Your task to perform on an android device: Clear all items from cart on target. Search for razer blade on target, select the first entry, add it to the cart, then select checkout. Image 0: 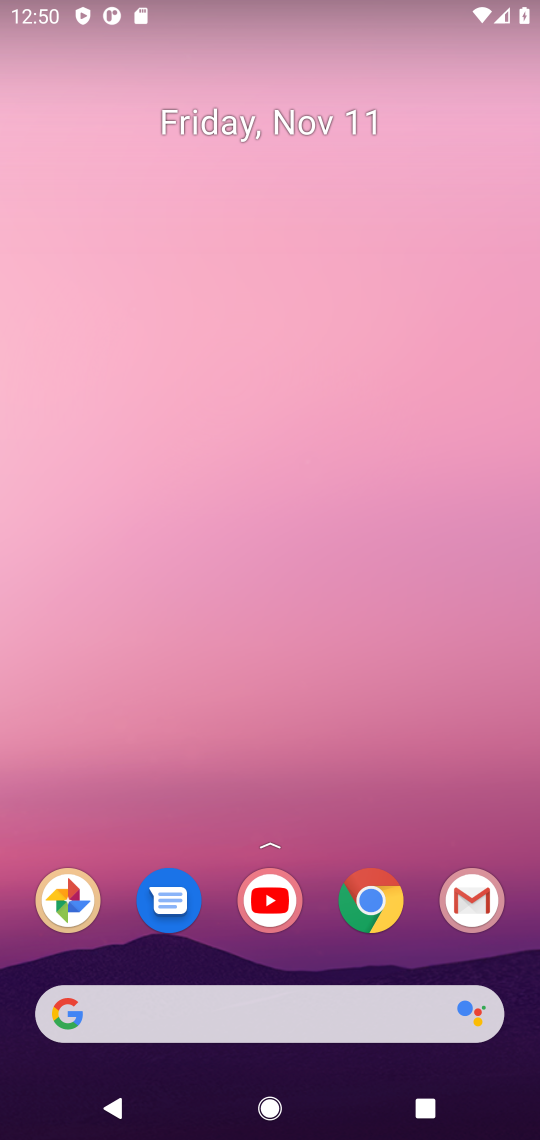
Step 0: press home button
Your task to perform on an android device: Clear all items from cart on target. Search for razer blade on target, select the first entry, add it to the cart, then select checkout. Image 1: 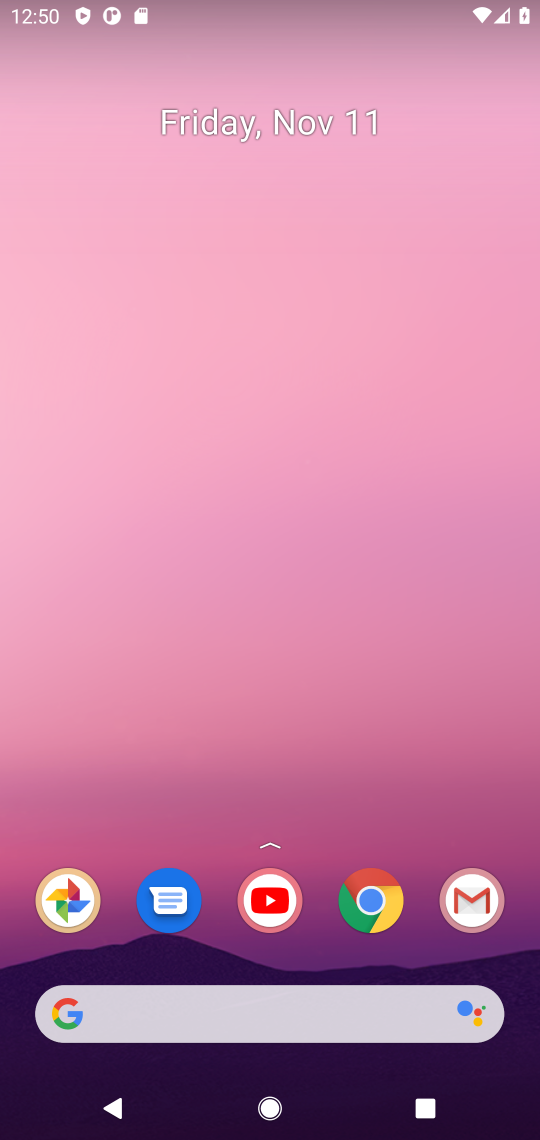
Step 1: click (364, 897)
Your task to perform on an android device: Clear all items from cart on target. Search for razer blade on target, select the first entry, add it to the cart, then select checkout. Image 2: 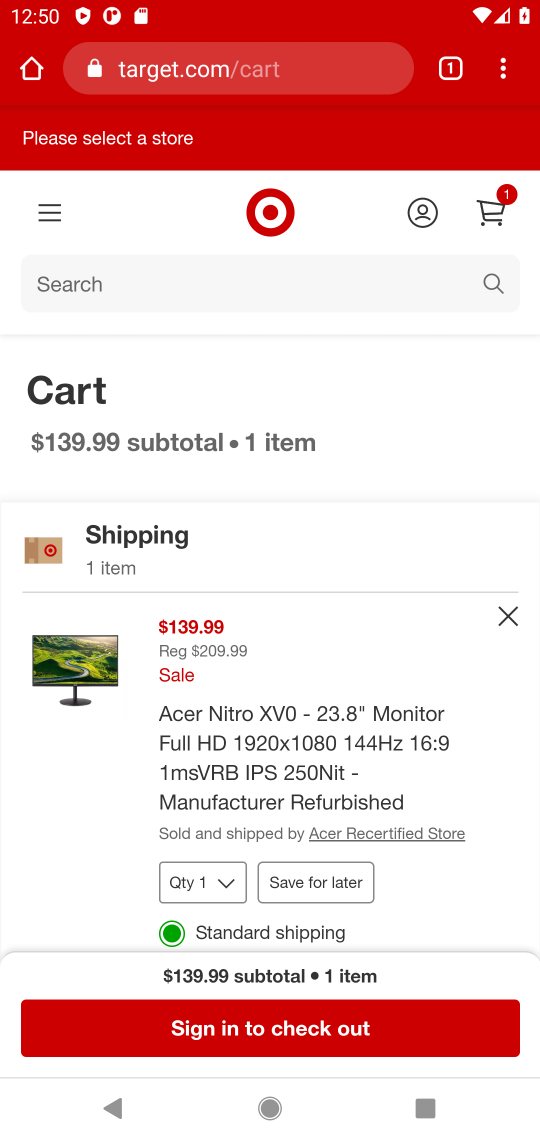
Step 2: click (505, 614)
Your task to perform on an android device: Clear all items from cart on target. Search for razer blade on target, select the first entry, add it to the cart, then select checkout. Image 3: 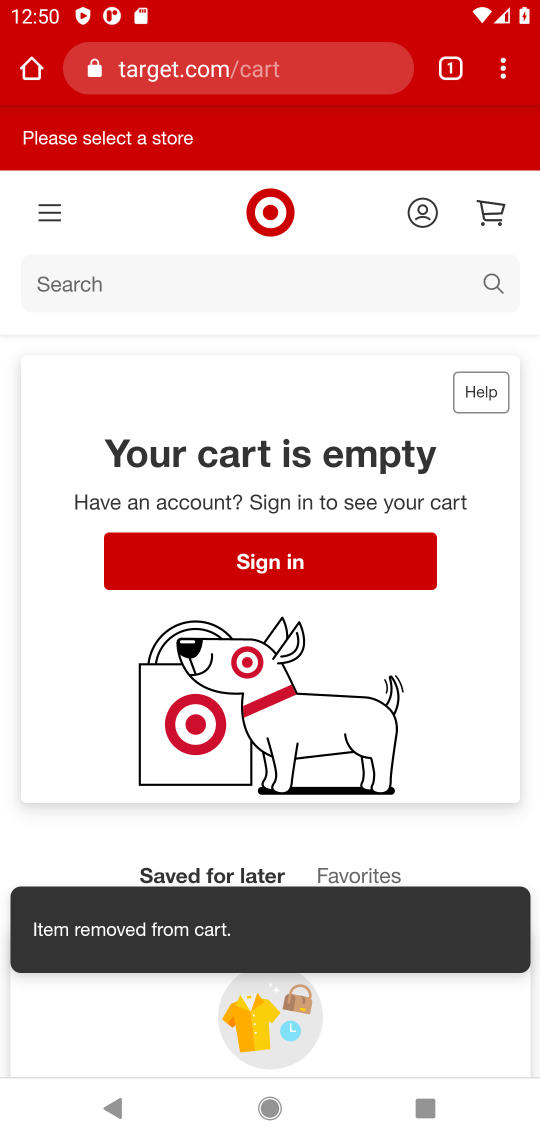
Step 3: click (65, 278)
Your task to perform on an android device: Clear all items from cart on target. Search for razer blade on target, select the first entry, add it to the cart, then select checkout. Image 4: 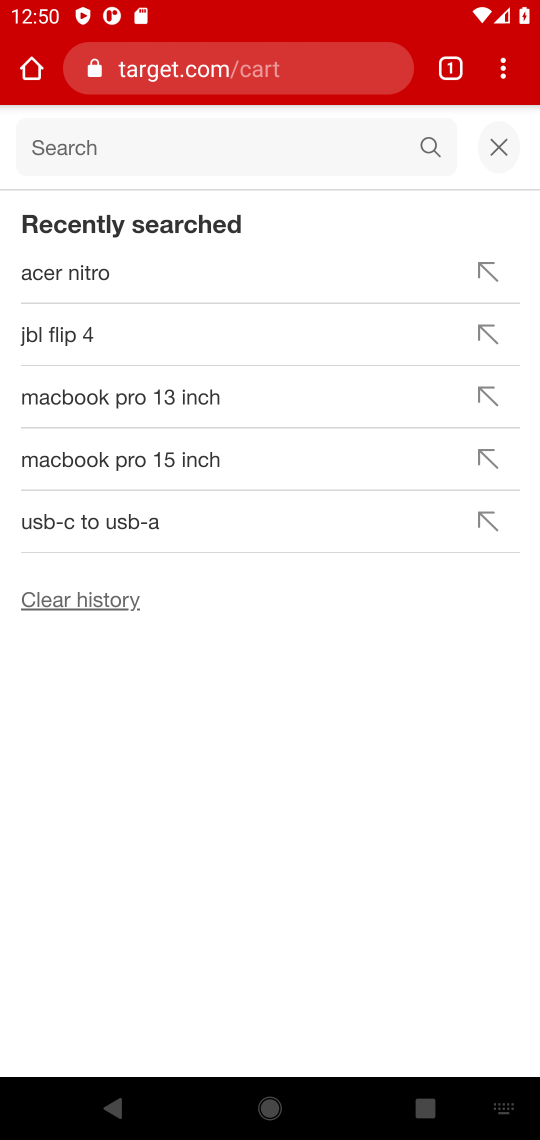
Step 4: click (47, 141)
Your task to perform on an android device: Clear all items from cart on target. Search for razer blade on target, select the first entry, add it to the cart, then select checkout. Image 5: 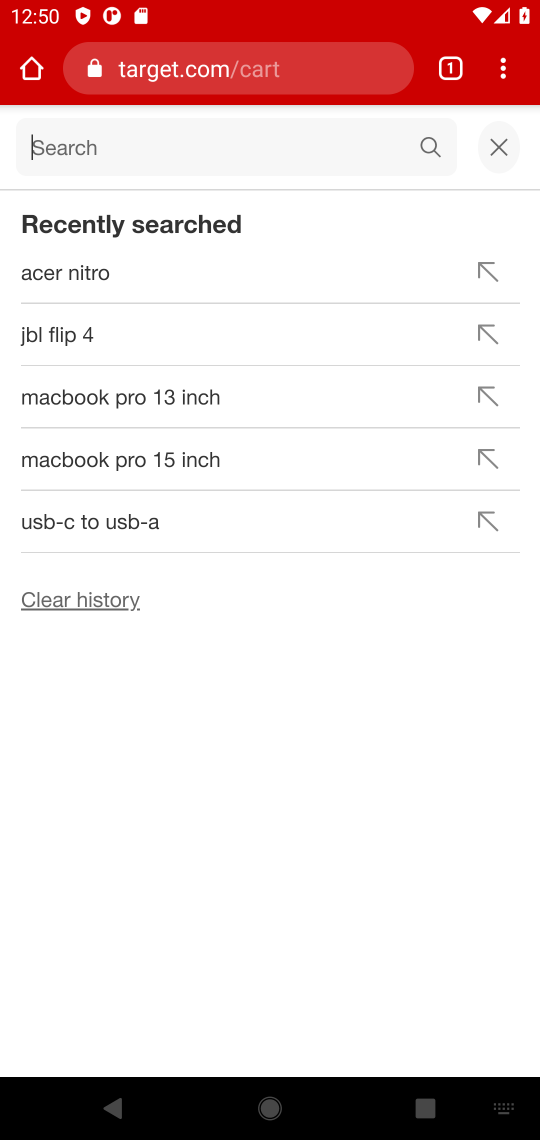
Step 5: type "razer blade"
Your task to perform on an android device: Clear all items from cart on target. Search for razer blade on target, select the first entry, add it to the cart, then select checkout. Image 6: 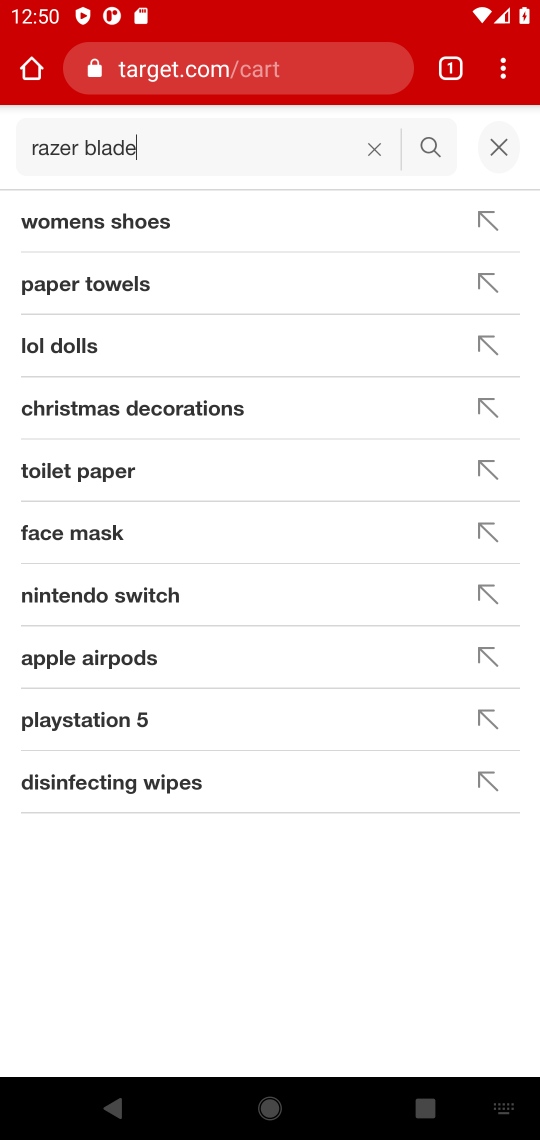
Step 6: press enter
Your task to perform on an android device: Clear all items from cart on target. Search for razer blade on target, select the first entry, add it to the cart, then select checkout. Image 7: 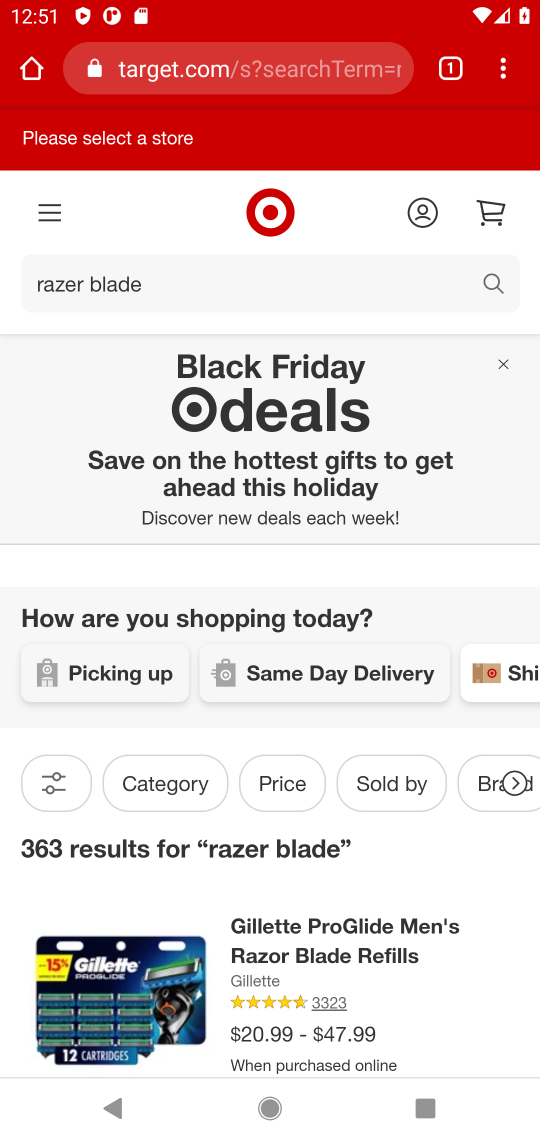
Step 7: drag from (222, 969) to (311, 578)
Your task to perform on an android device: Clear all items from cart on target. Search for razer blade on target, select the first entry, add it to the cart, then select checkout. Image 8: 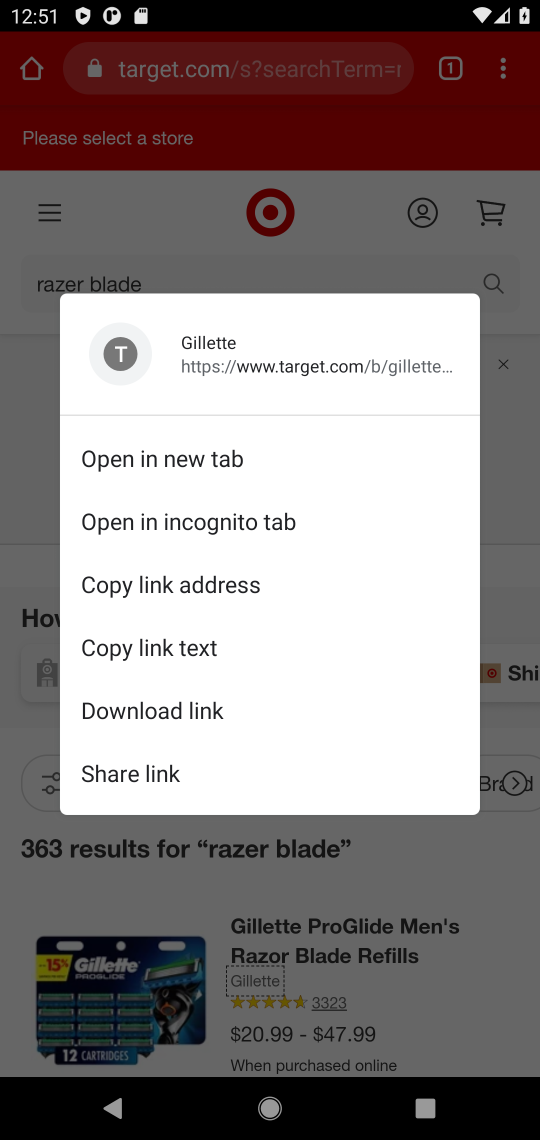
Step 8: click (461, 955)
Your task to perform on an android device: Clear all items from cart on target. Search for razer blade on target, select the first entry, add it to the cart, then select checkout. Image 9: 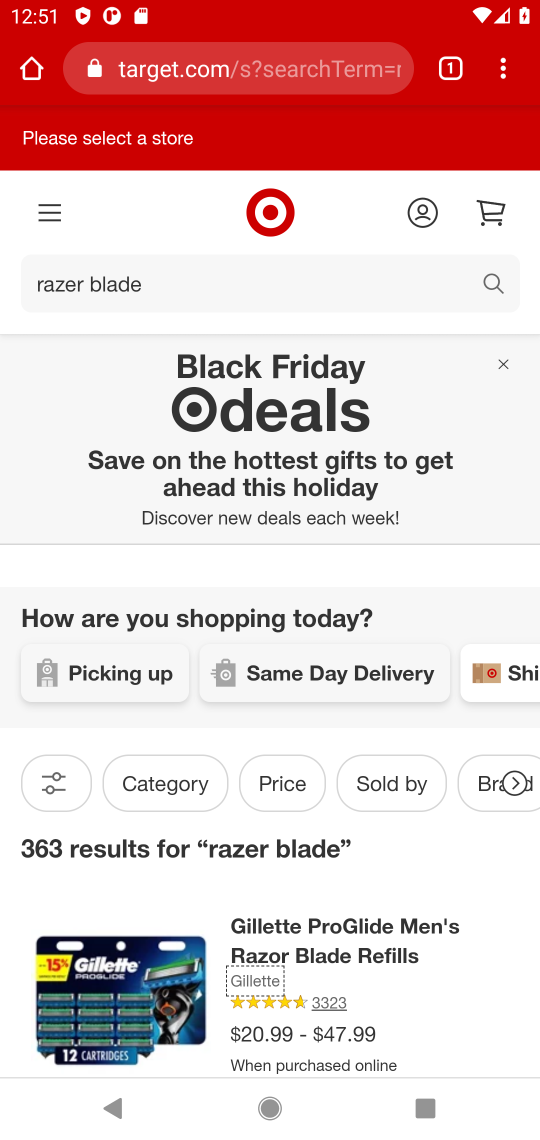
Step 9: task complete